Your task to perform on an android device: Open my contact list Image 0: 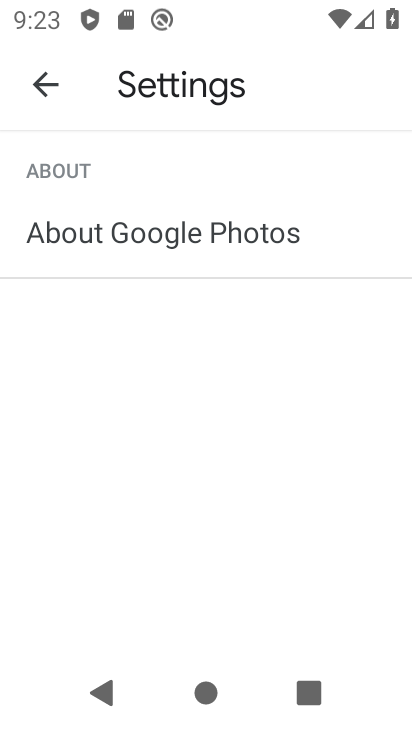
Step 0: press home button
Your task to perform on an android device: Open my contact list Image 1: 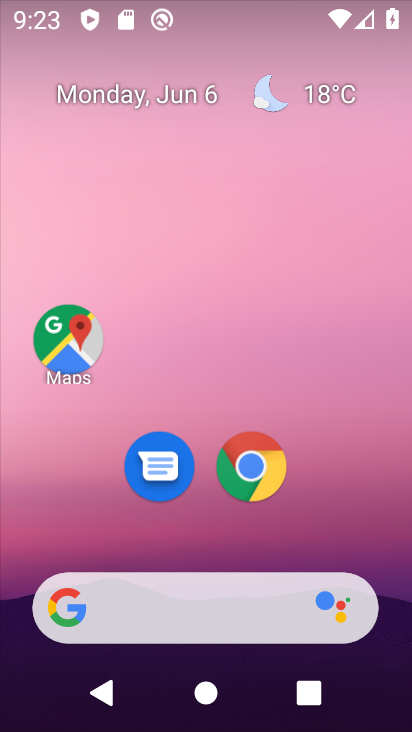
Step 1: drag from (218, 534) to (219, 136)
Your task to perform on an android device: Open my contact list Image 2: 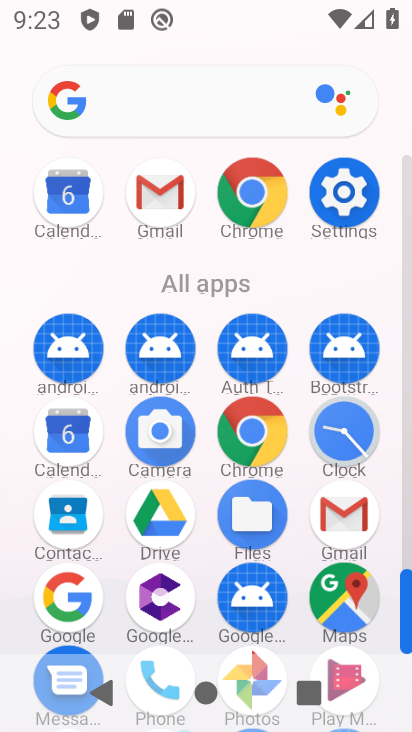
Step 2: click (67, 535)
Your task to perform on an android device: Open my contact list Image 3: 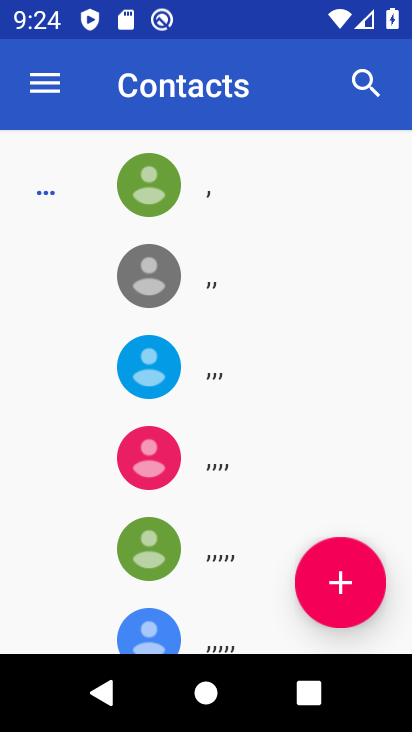
Step 3: task complete